Your task to perform on an android device: check storage Image 0: 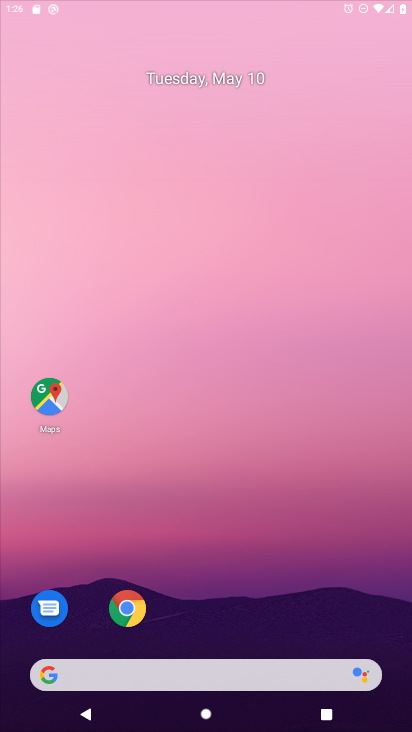
Step 0: click (308, 151)
Your task to perform on an android device: check storage Image 1: 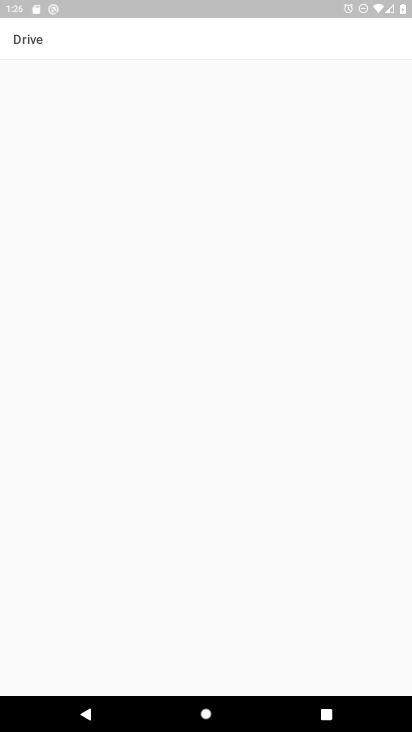
Step 1: press home button
Your task to perform on an android device: check storage Image 2: 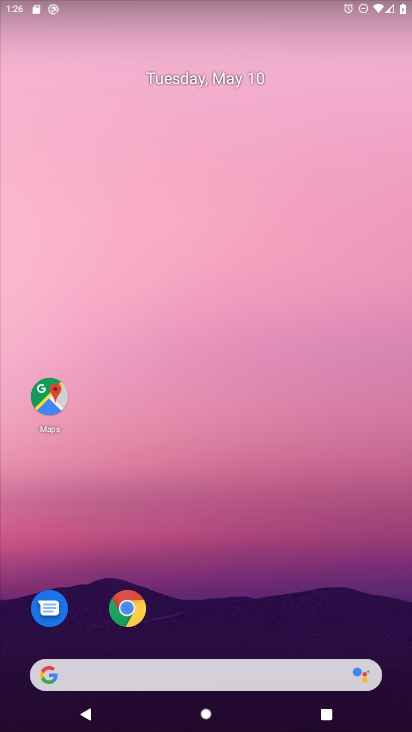
Step 2: drag from (335, 608) to (306, 169)
Your task to perform on an android device: check storage Image 3: 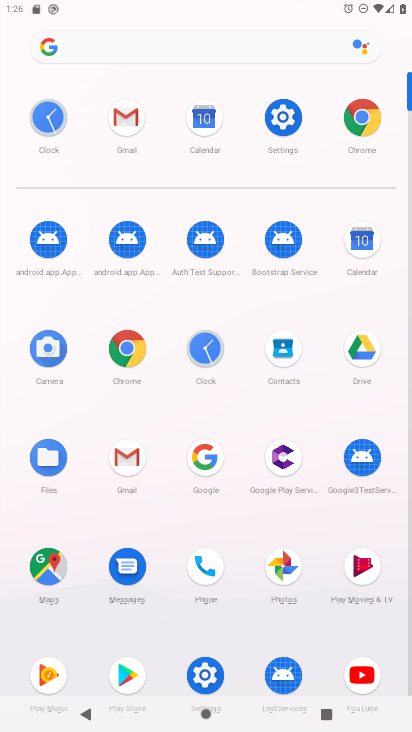
Step 3: click (210, 674)
Your task to perform on an android device: check storage Image 4: 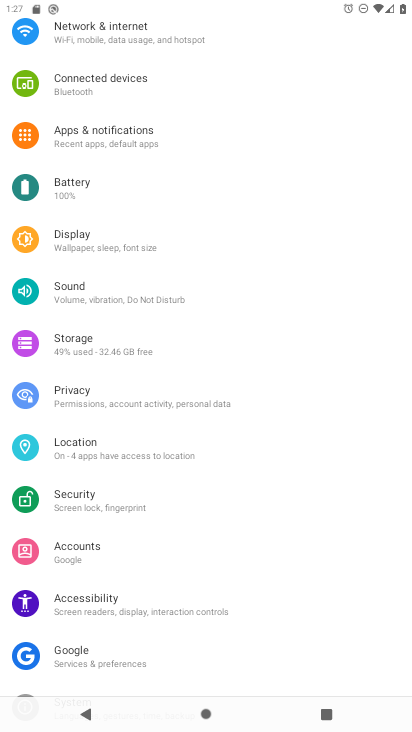
Step 4: click (85, 333)
Your task to perform on an android device: check storage Image 5: 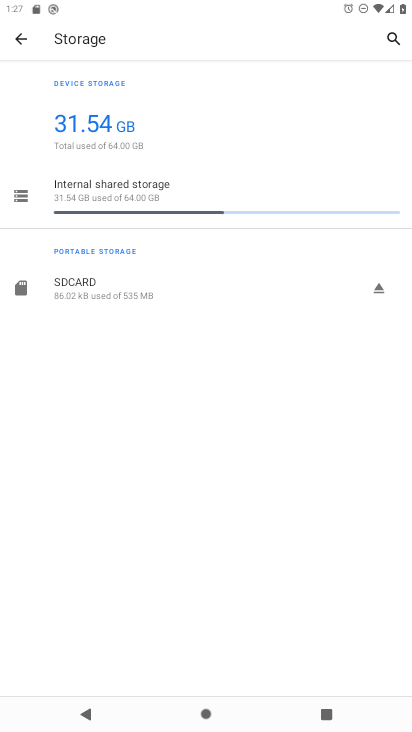
Step 5: click (21, 191)
Your task to perform on an android device: check storage Image 6: 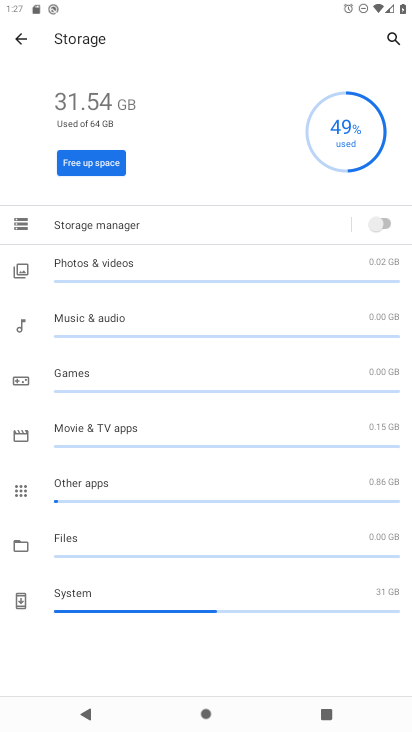
Step 6: task complete